Your task to perform on an android device: toggle translation in the chrome app Image 0: 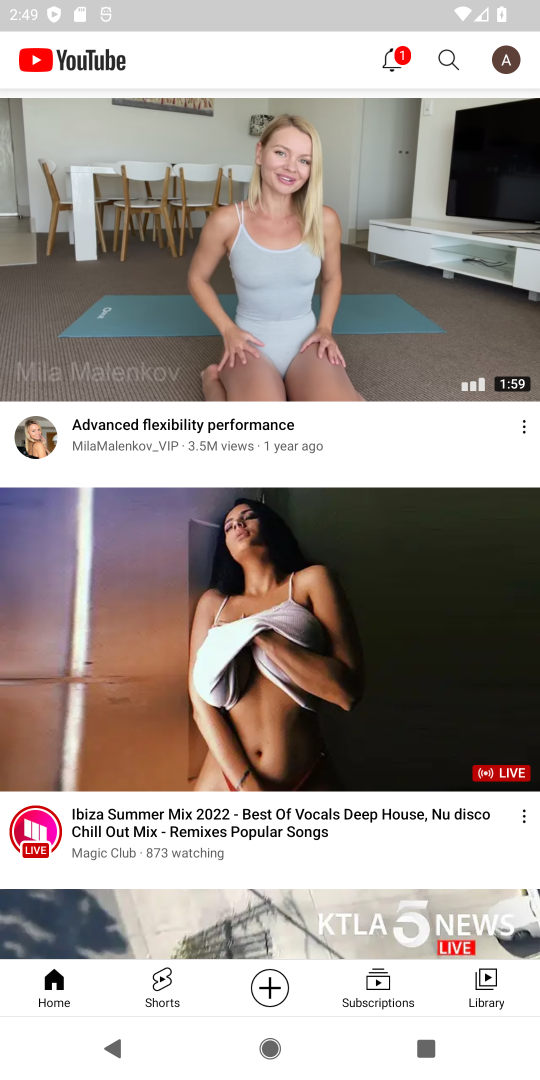
Step 0: press home button
Your task to perform on an android device: toggle translation in the chrome app Image 1: 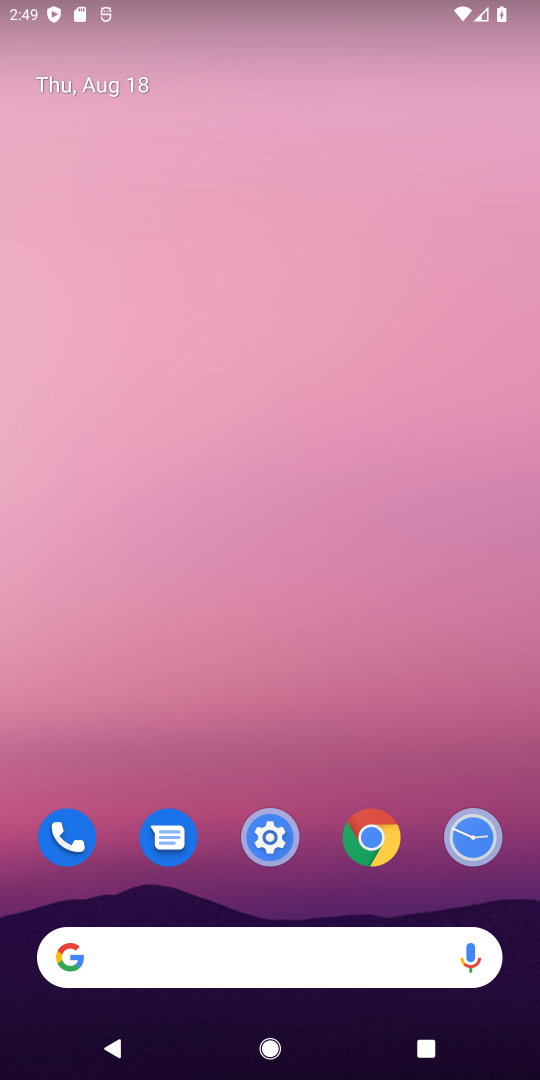
Step 1: drag from (324, 769) to (398, 14)
Your task to perform on an android device: toggle translation in the chrome app Image 2: 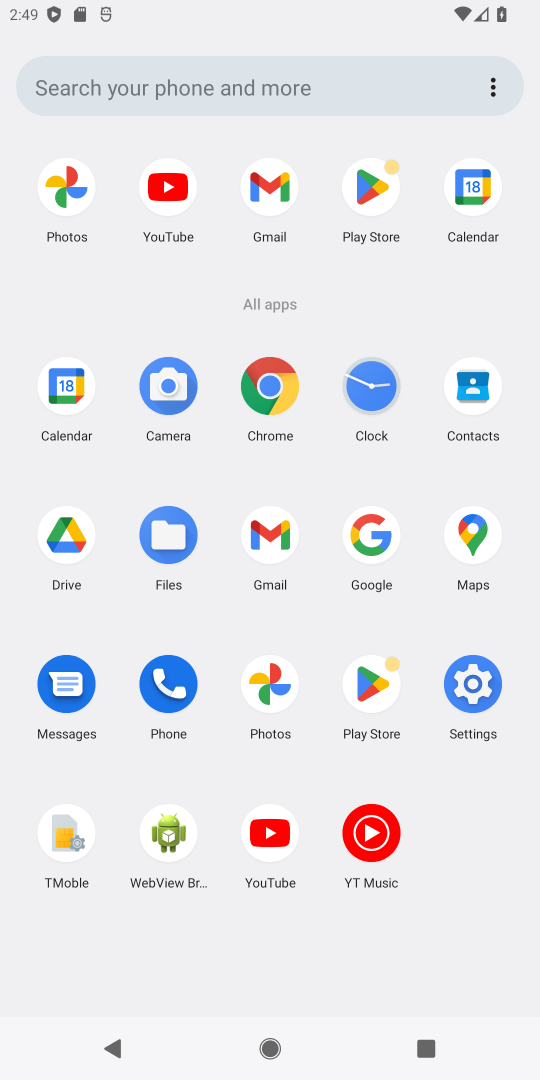
Step 2: click (268, 387)
Your task to perform on an android device: toggle translation in the chrome app Image 3: 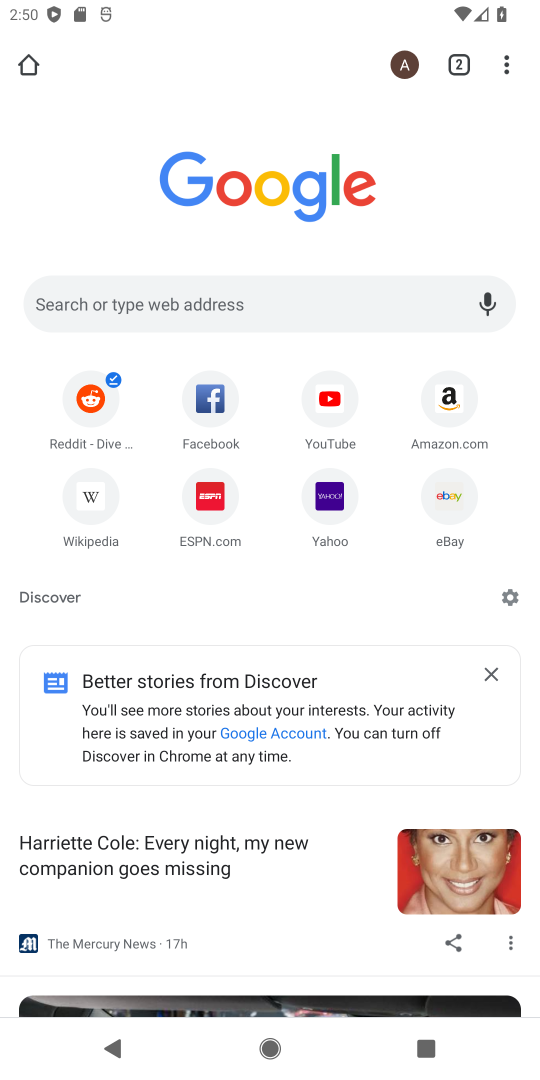
Step 3: drag from (508, 60) to (378, 572)
Your task to perform on an android device: toggle translation in the chrome app Image 4: 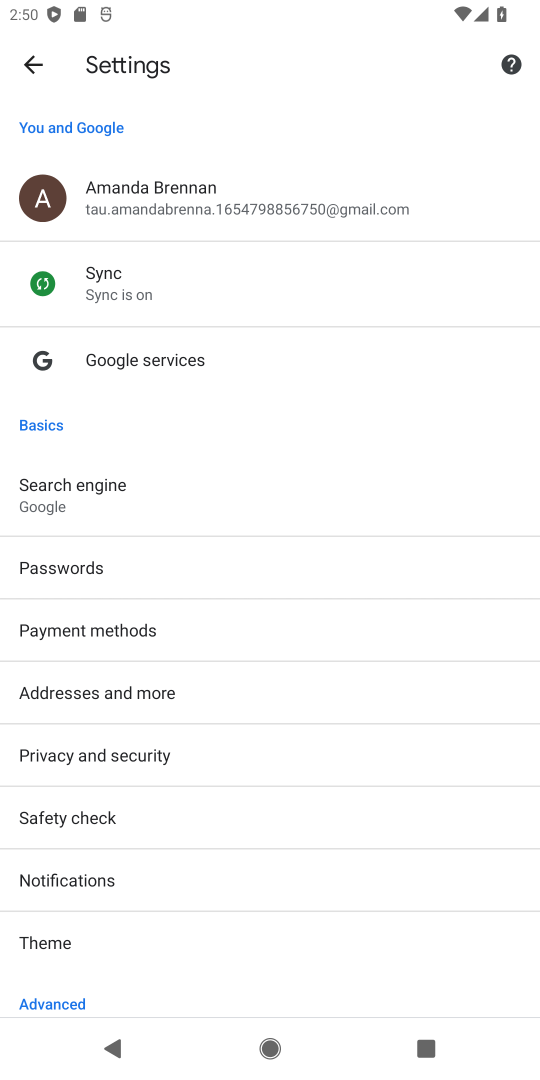
Step 4: drag from (164, 922) to (269, 693)
Your task to perform on an android device: toggle translation in the chrome app Image 5: 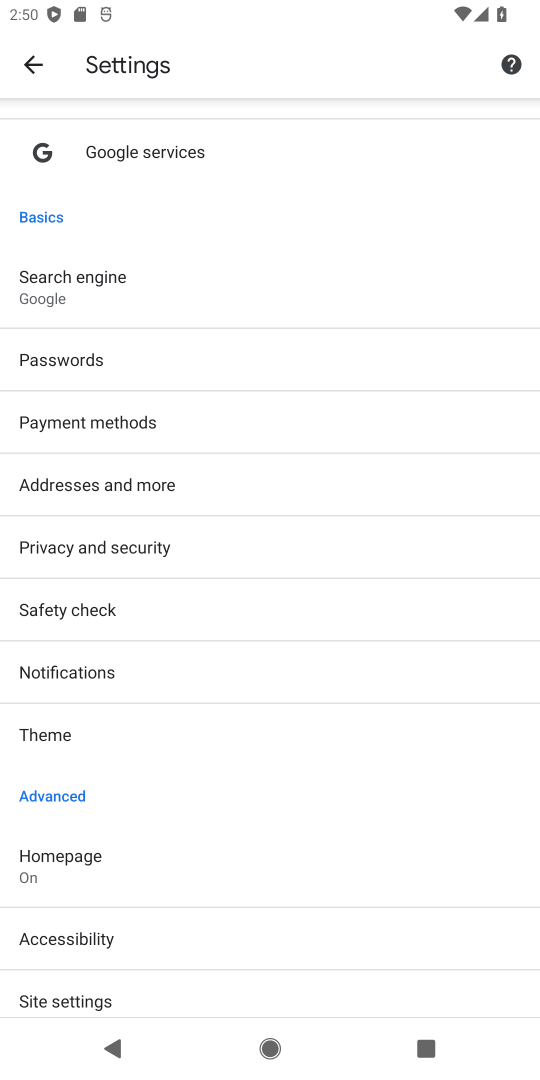
Step 5: drag from (210, 943) to (361, 477)
Your task to perform on an android device: toggle translation in the chrome app Image 6: 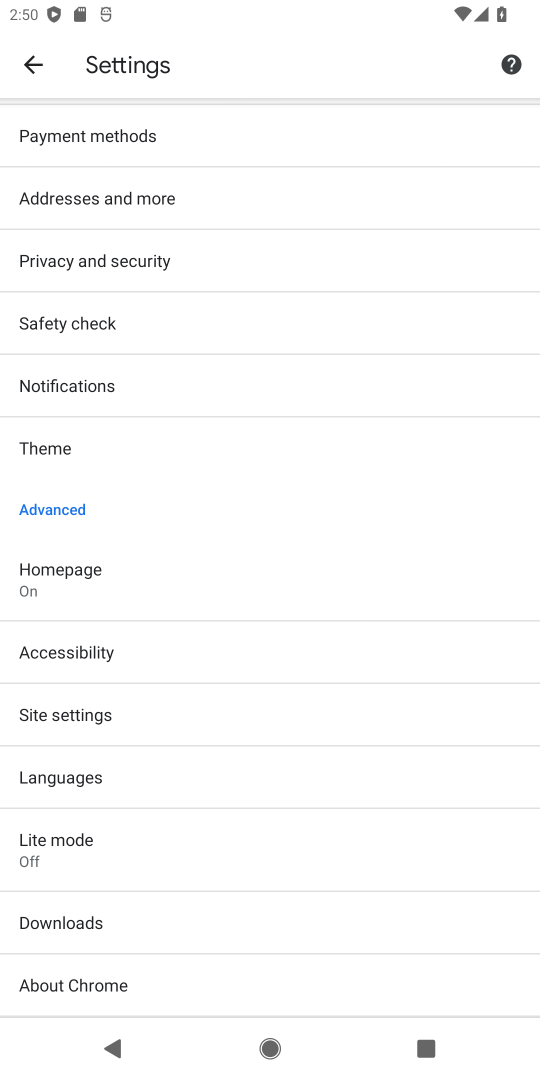
Step 6: click (65, 776)
Your task to perform on an android device: toggle translation in the chrome app Image 7: 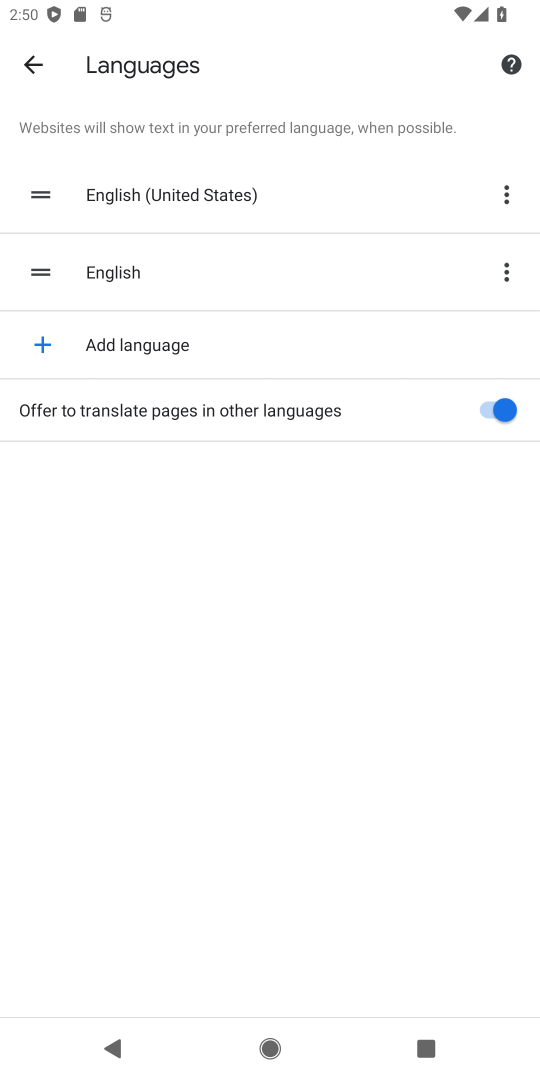
Step 7: click (504, 407)
Your task to perform on an android device: toggle translation in the chrome app Image 8: 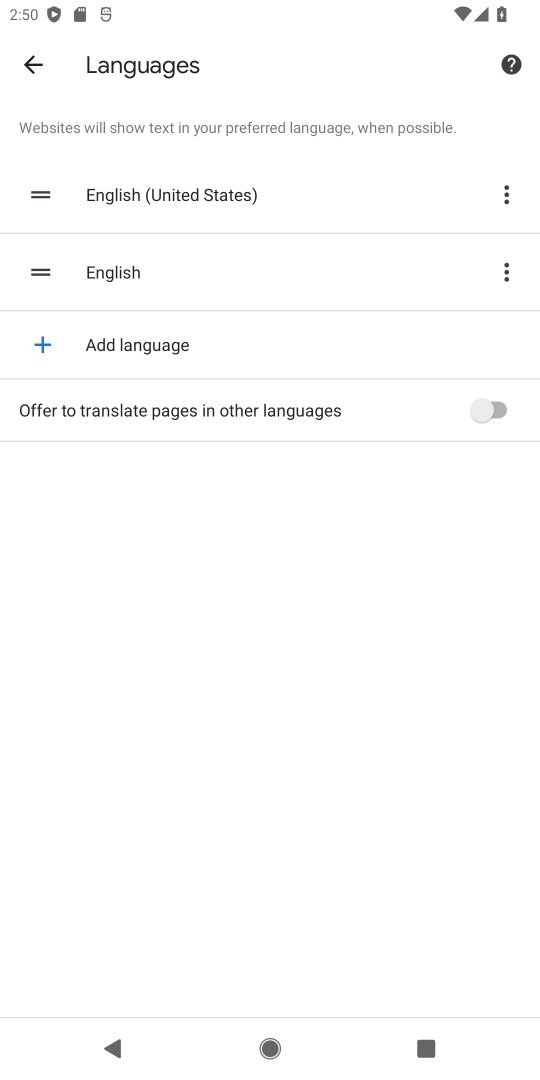
Step 8: task complete